Your task to perform on an android device: change notifications settings Image 0: 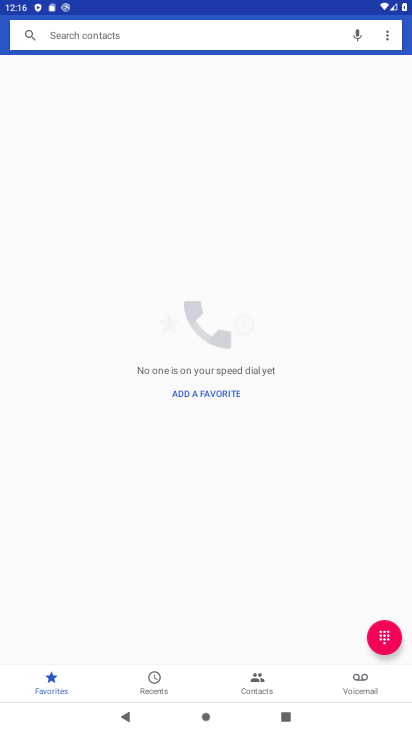
Step 0: press home button
Your task to perform on an android device: change notifications settings Image 1: 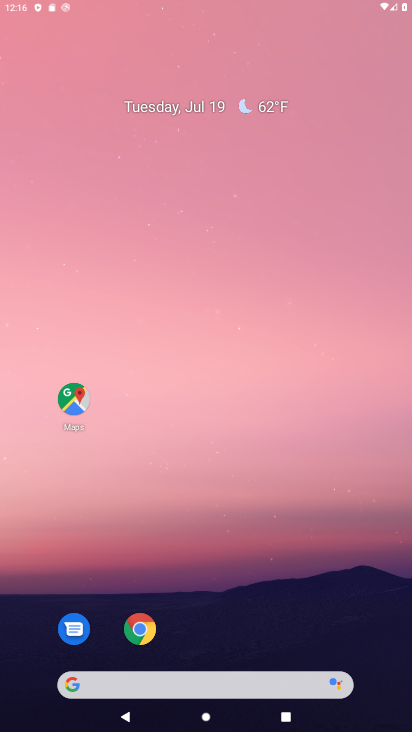
Step 1: press home button
Your task to perform on an android device: change notifications settings Image 2: 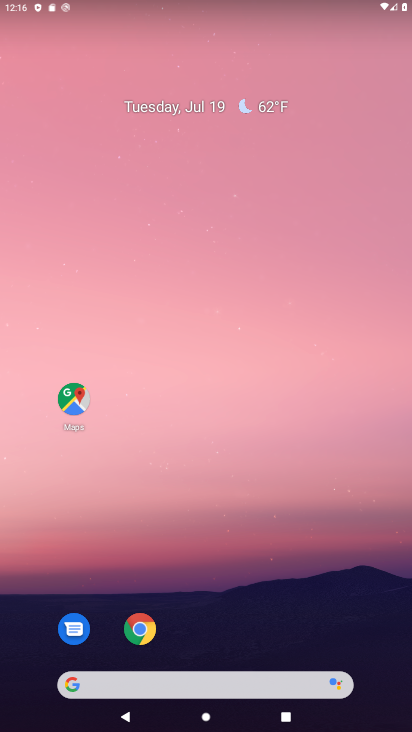
Step 2: drag from (202, 668) to (193, 51)
Your task to perform on an android device: change notifications settings Image 3: 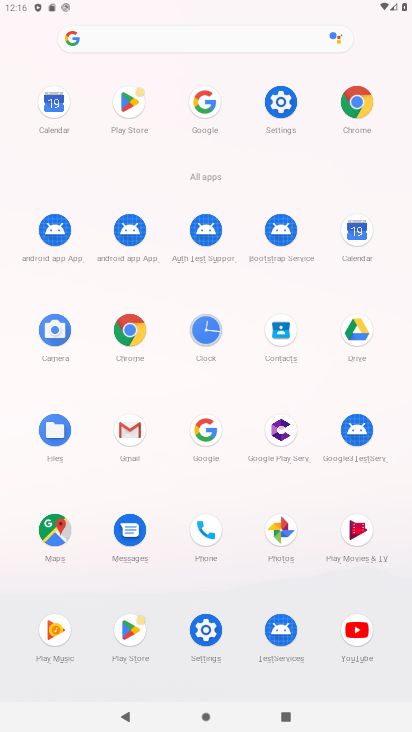
Step 3: click (287, 102)
Your task to perform on an android device: change notifications settings Image 4: 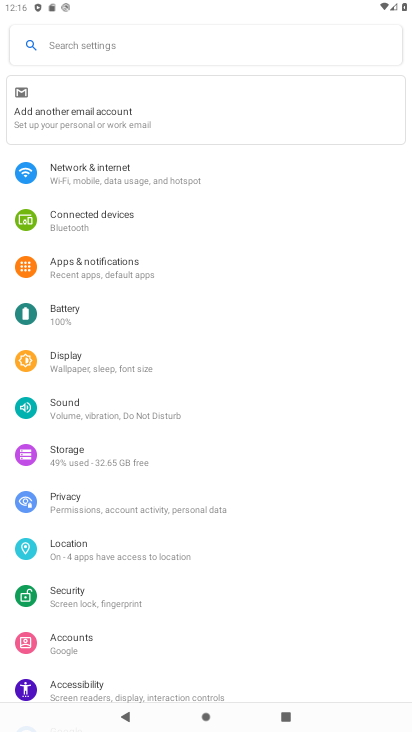
Step 4: click (105, 283)
Your task to perform on an android device: change notifications settings Image 5: 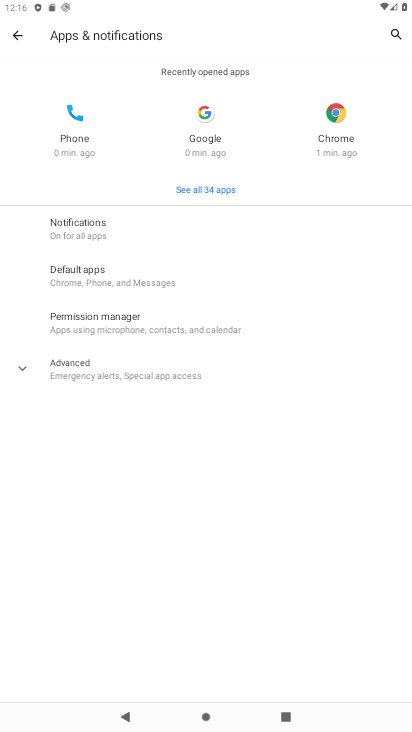
Step 5: click (95, 241)
Your task to perform on an android device: change notifications settings Image 6: 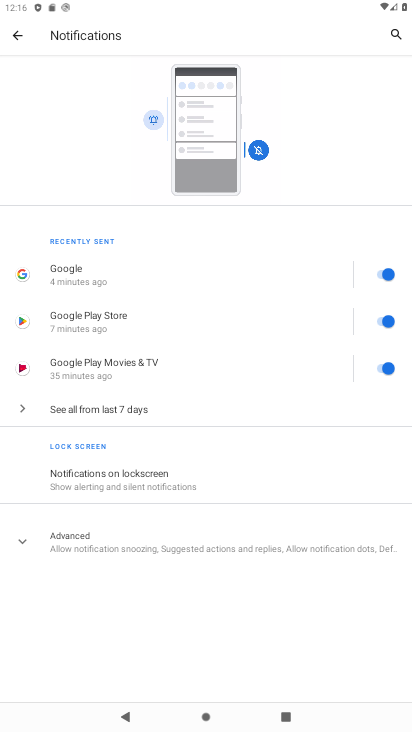
Step 6: click (101, 416)
Your task to perform on an android device: change notifications settings Image 7: 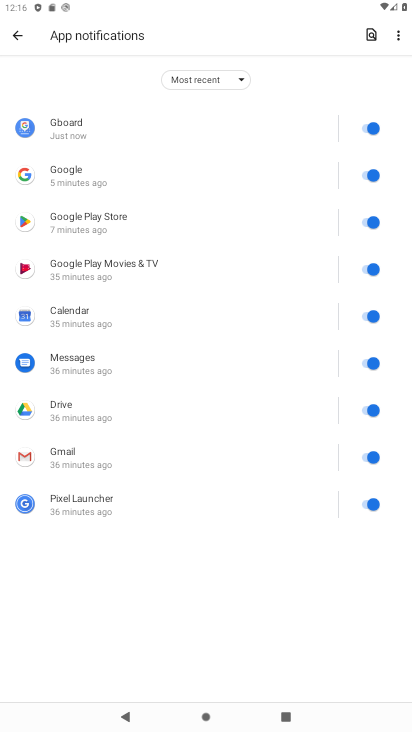
Step 7: click (204, 64)
Your task to perform on an android device: change notifications settings Image 8: 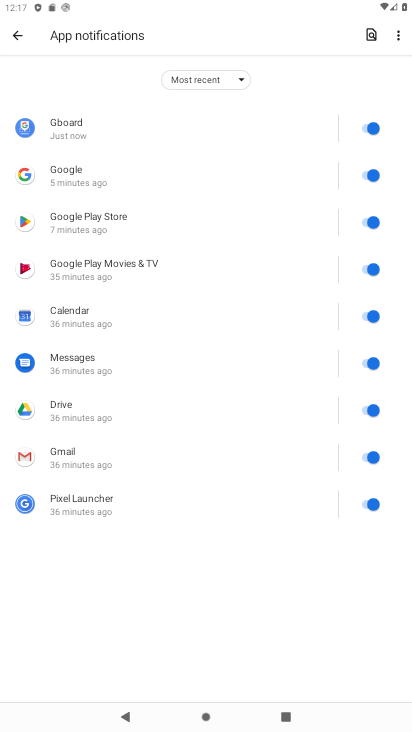
Step 8: click (195, 73)
Your task to perform on an android device: change notifications settings Image 9: 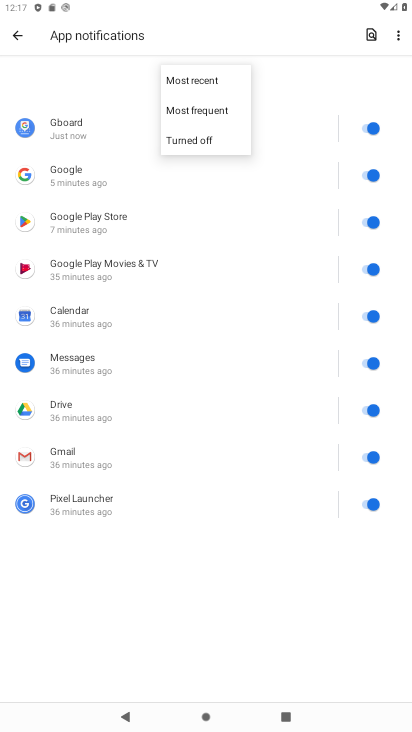
Step 9: click (206, 133)
Your task to perform on an android device: change notifications settings Image 10: 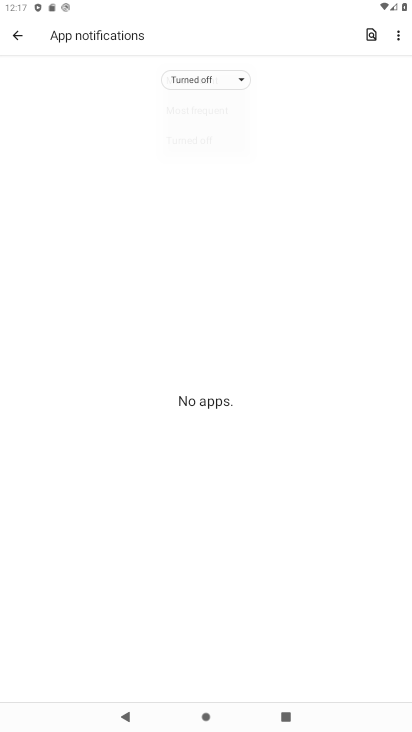
Step 10: task complete